Your task to perform on an android device: delete location history Image 0: 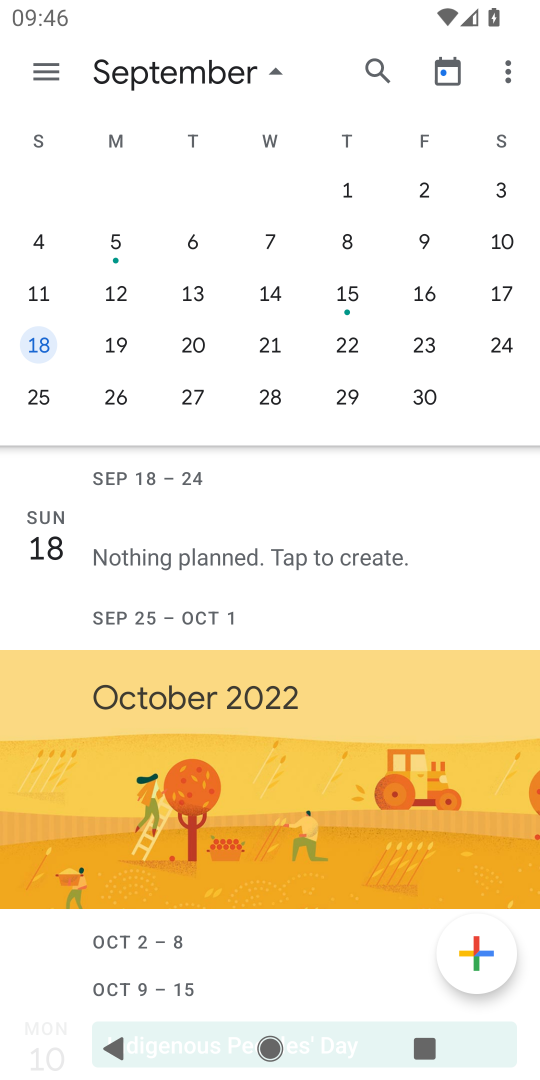
Step 0: press home button
Your task to perform on an android device: delete location history Image 1: 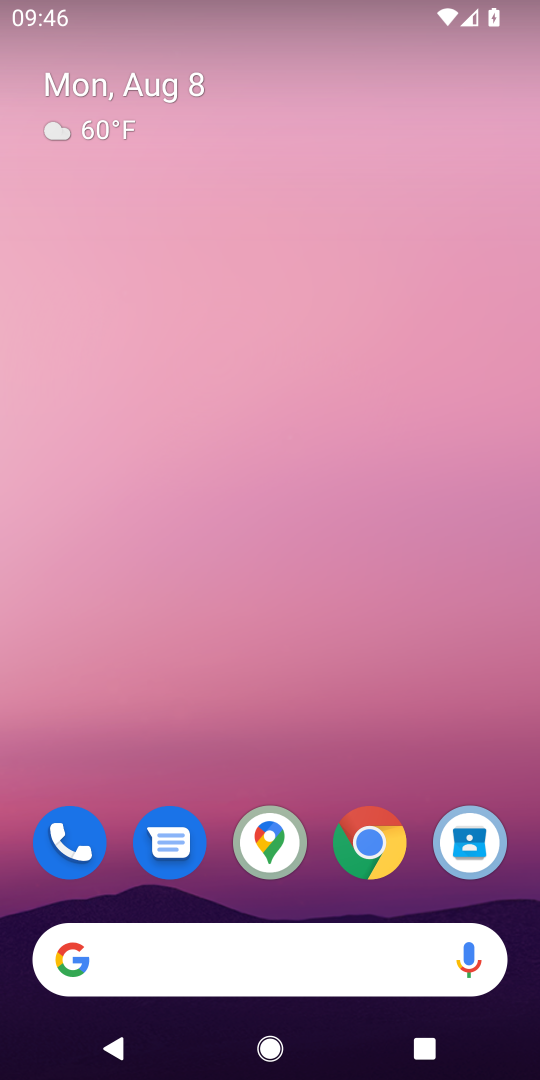
Step 1: click (286, 832)
Your task to perform on an android device: delete location history Image 2: 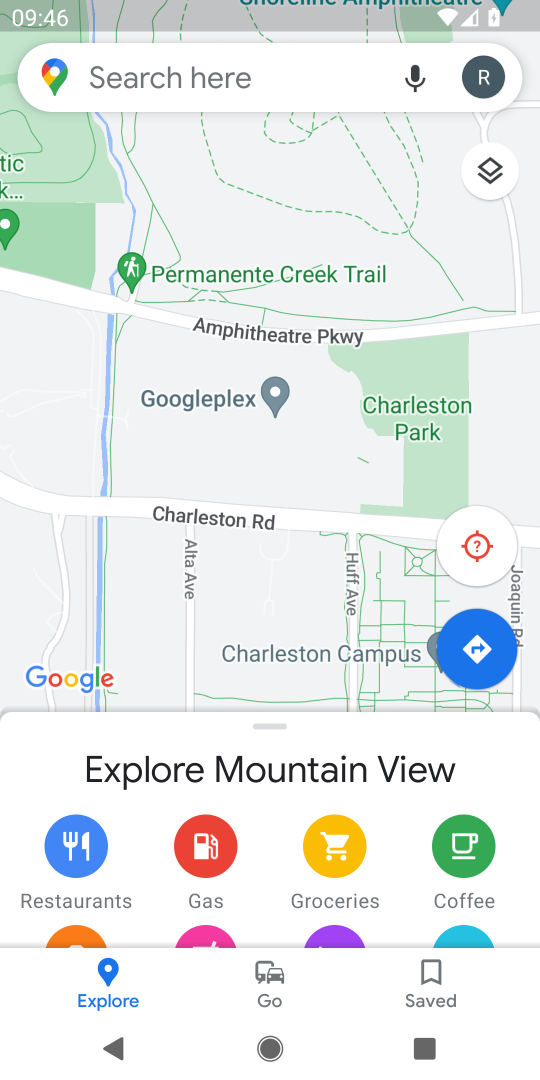
Step 2: click (409, 966)
Your task to perform on an android device: delete location history Image 3: 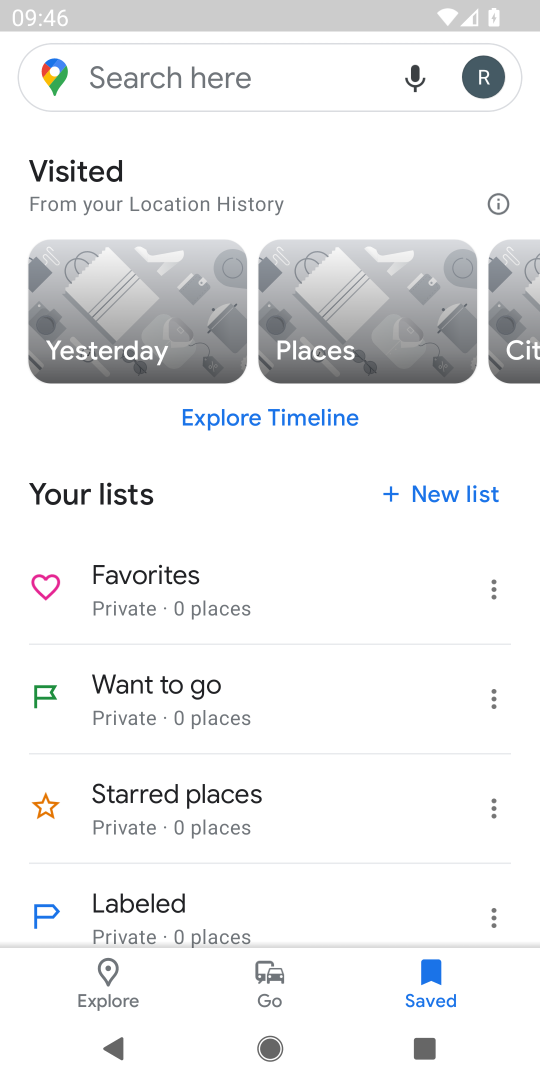
Step 3: click (279, 414)
Your task to perform on an android device: delete location history Image 4: 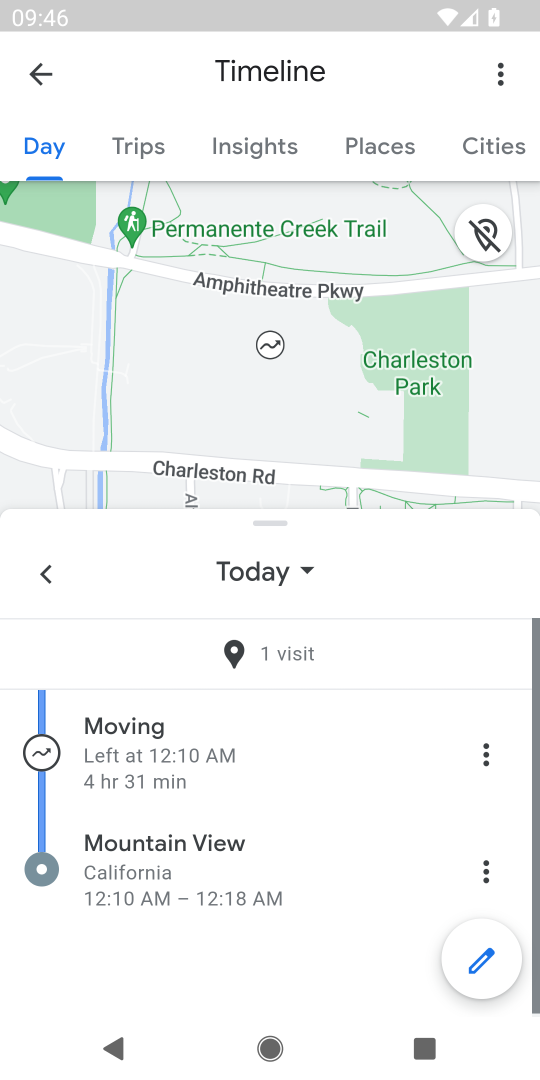
Step 4: click (500, 73)
Your task to perform on an android device: delete location history Image 5: 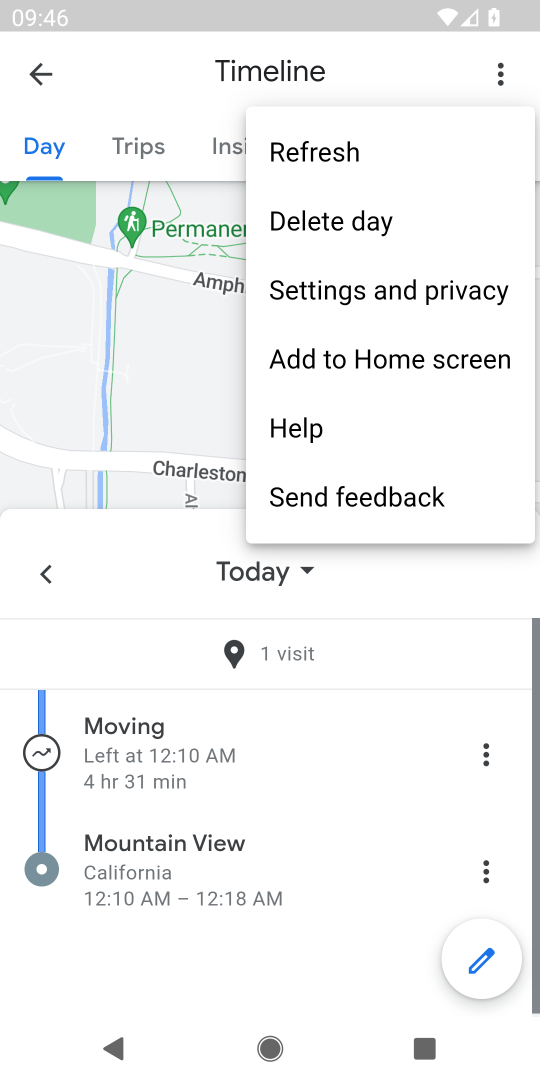
Step 5: click (414, 299)
Your task to perform on an android device: delete location history Image 6: 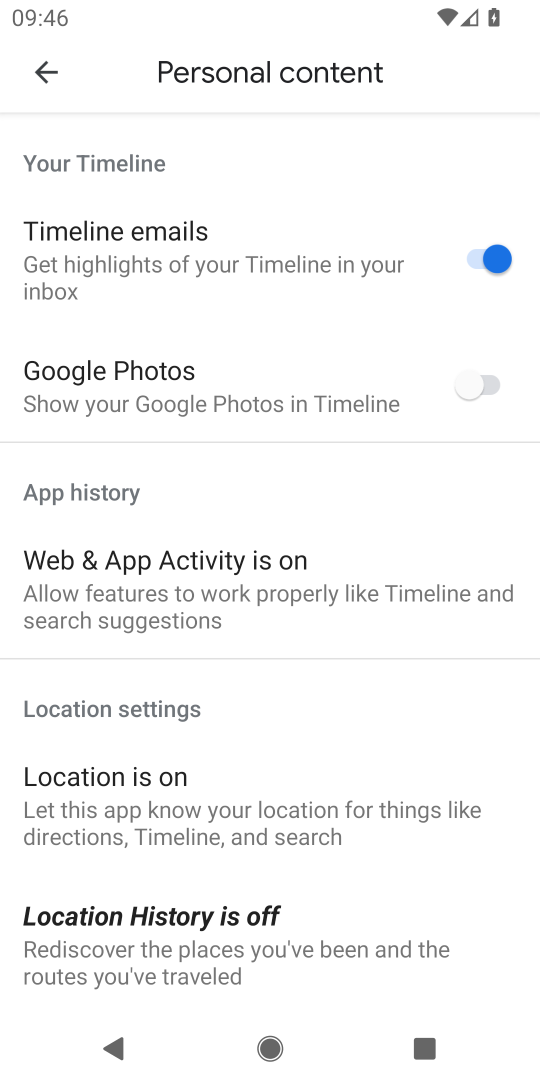
Step 6: drag from (215, 739) to (199, 281)
Your task to perform on an android device: delete location history Image 7: 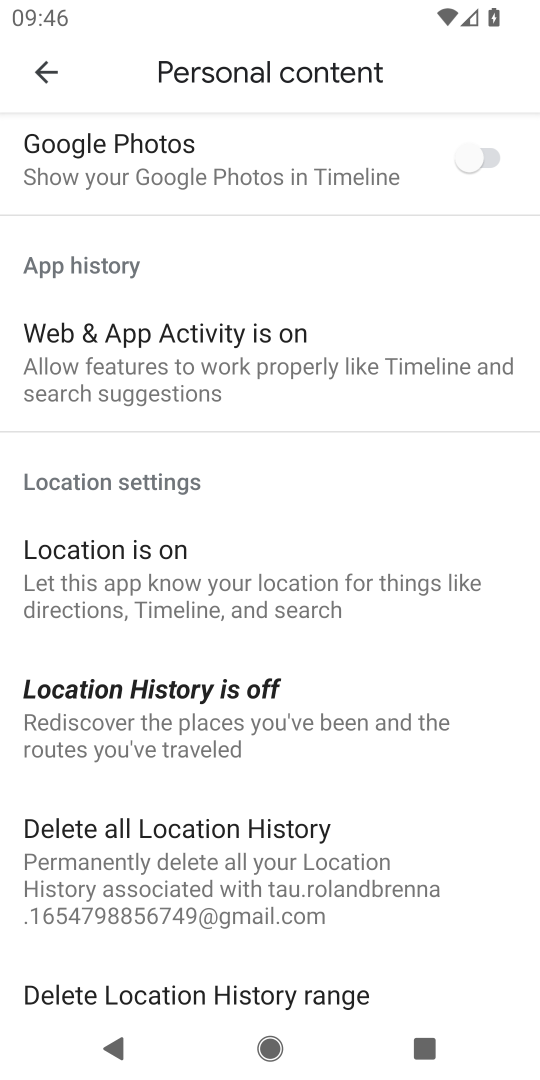
Step 7: click (331, 846)
Your task to perform on an android device: delete location history Image 8: 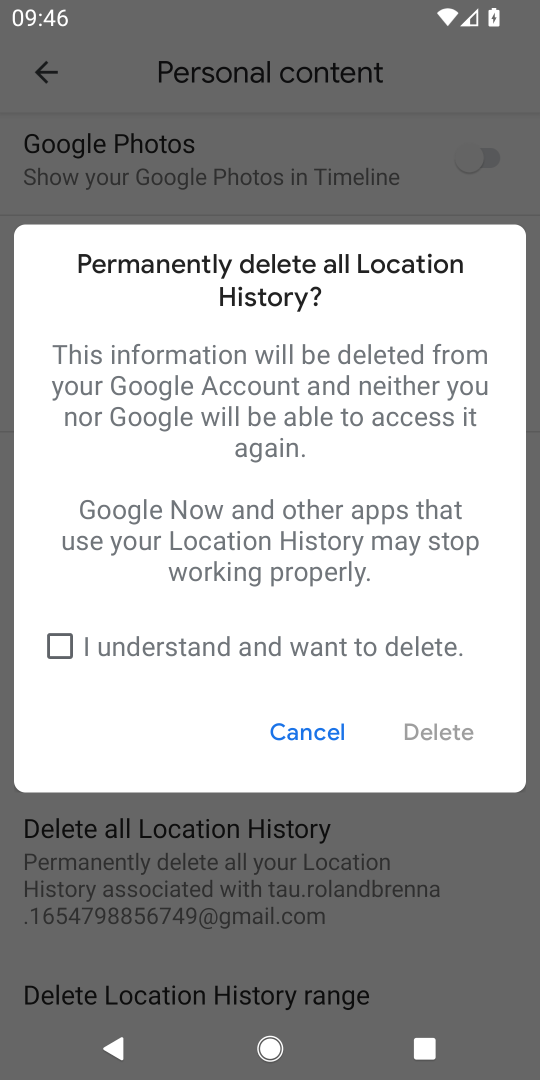
Step 8: click (68, 643)
Your task to perform on an android device: delete location history Image 9: 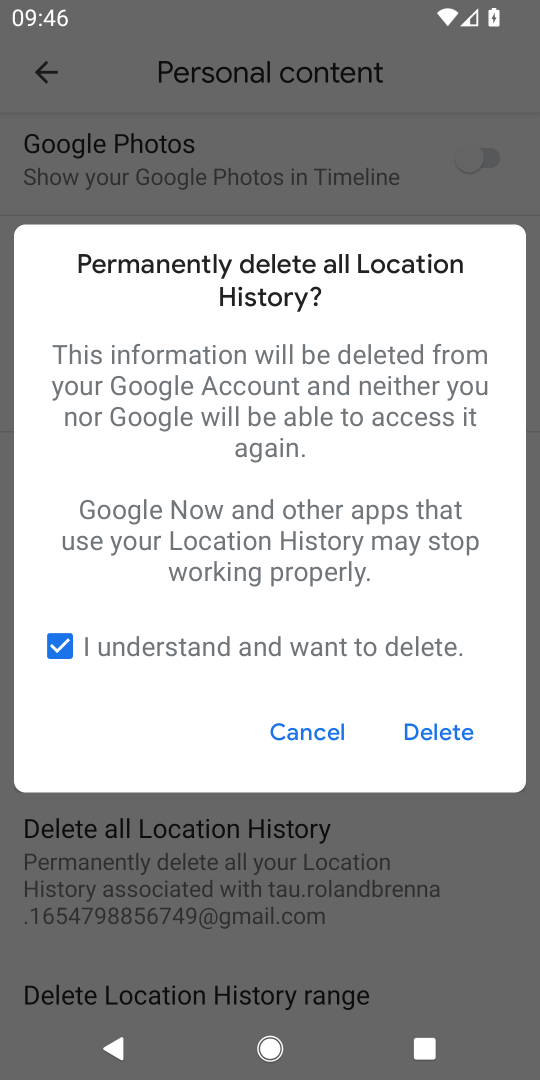
Step 9: click (422, 720)
Your task to perform on an android device: delete location history Image 10: 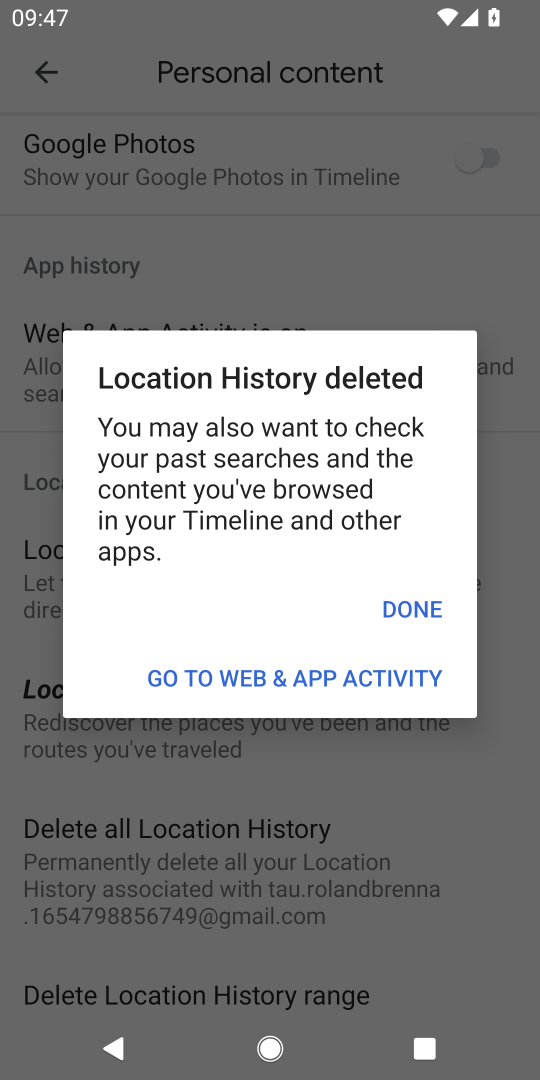
Step 10: task complete